Your task to perform on an android device: Go to accessibility settings Image 0: 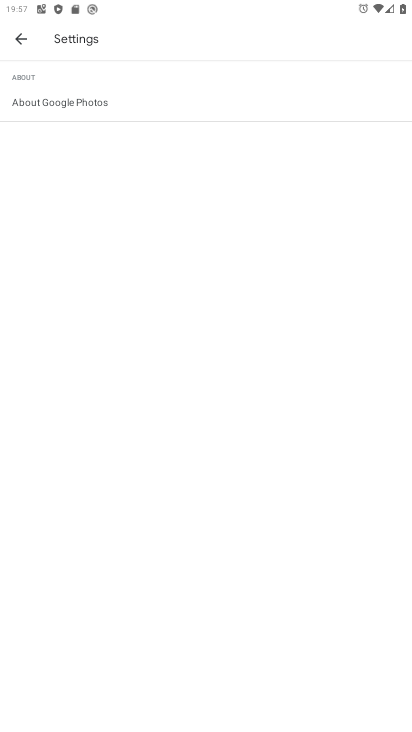
Step 0: press home button
Your task to perform on an android device: Go to accessibility settings Image 1: 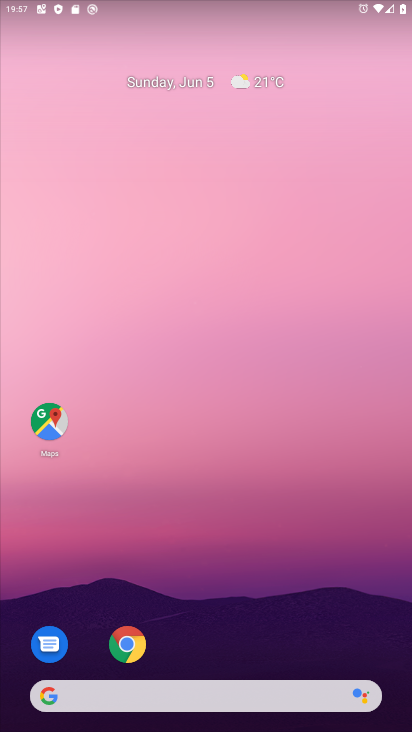
Step 1: click (142, 643)
Your task to perform on an android device: Go to accessibility settings Image 2: 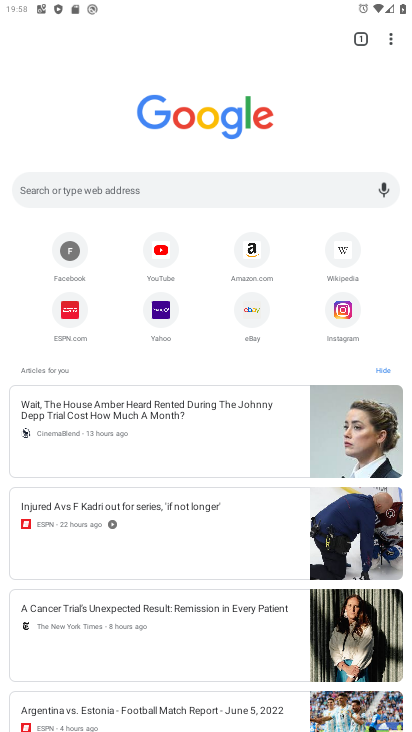
Step 2: click (384, 38)
Your task to perform on an android device: Go to accessibility settings Image 3: 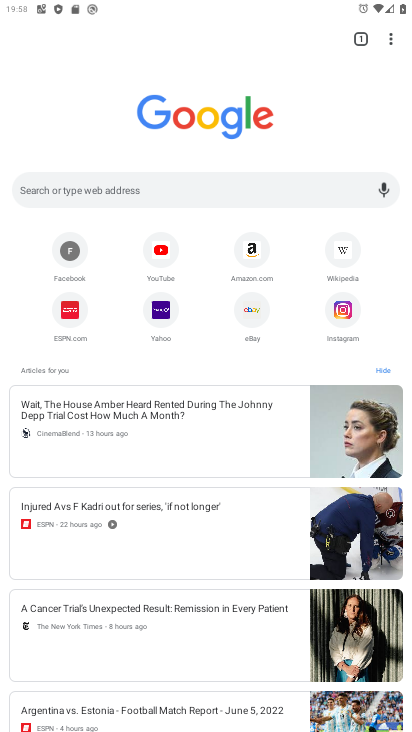
Step 3: click (391, 41)
Your task to perform on an android device: Go to accessibility settings Image 4: 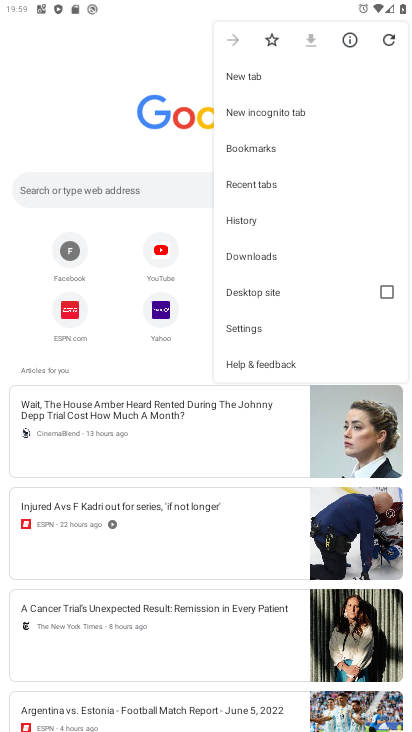
Step 4: click (248, 328)
Your task to perform on an android device: Go to accessibility settings Image 5: 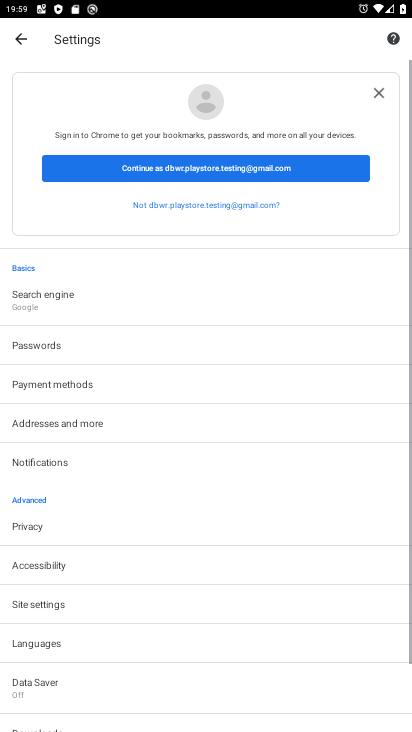
Step 5: click (71, 566)
Your task to perform on an android device: Go to accessibility settings Image 6: 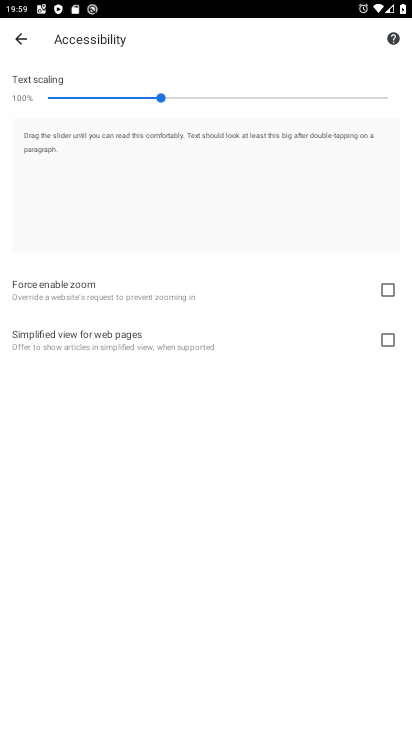
Step 6: task complete